Your task to perform on an android device: Open battery settings Image 0: 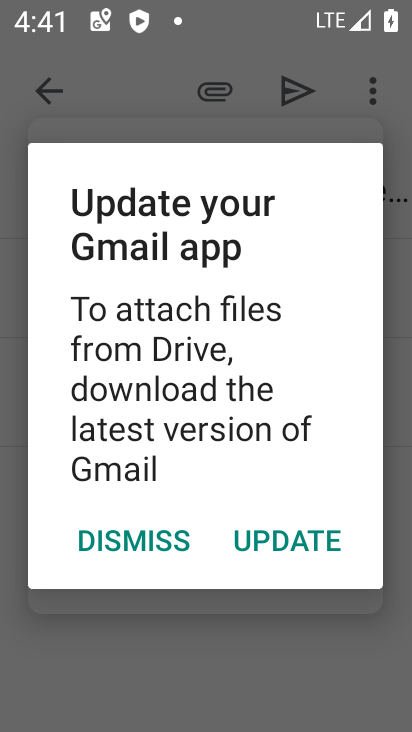
Step 0: press home button
Your task to perform on an android device: Open battery settings Image 1: 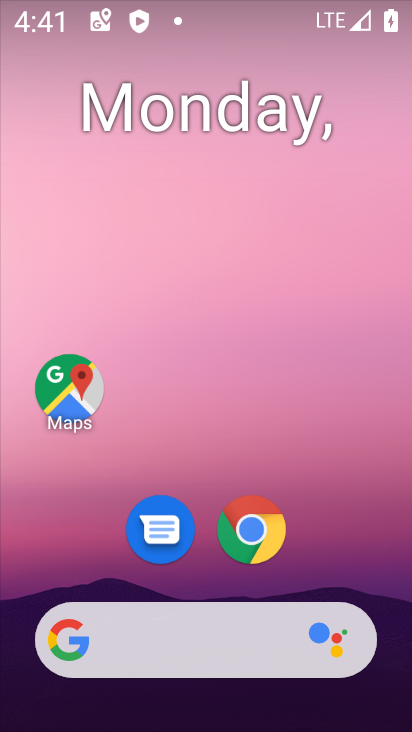
Step 1: drag from (365, 563) to (309, 135)
Your task to perform on an android device: Open battery settings Image 2: 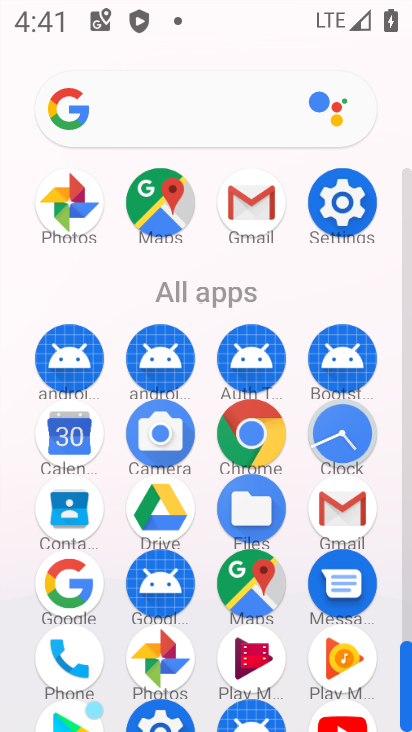
Step 2: click (345, 183)
Your task to perform on an android device: Open battery settings Image 3: 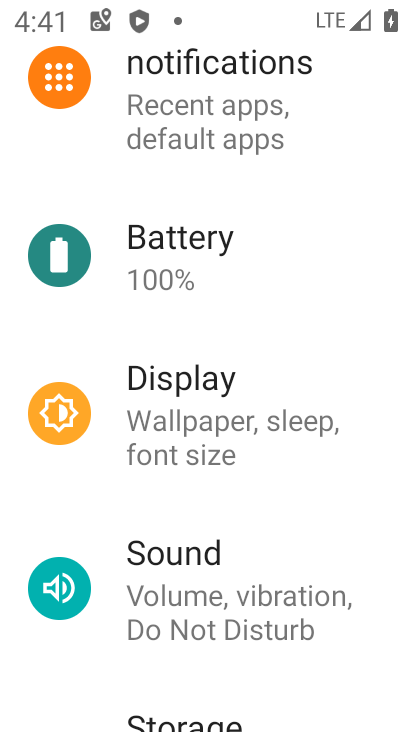
Step 3: click (212, 279)
Your task to perform on an android device: Open battery settings Image 4: 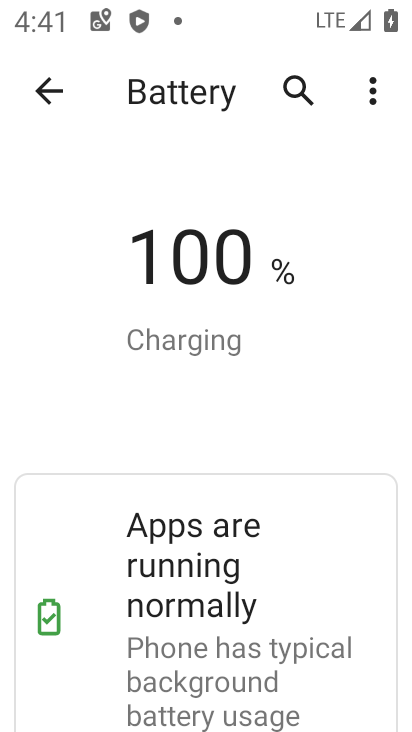
Step 4: task complete